Your task to perform on an android device: turn smart compose on in the gmail app Image 0: 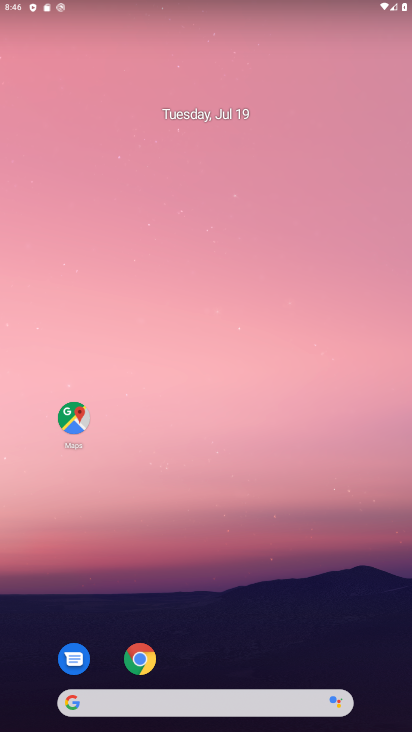
Step 0: drag from (209, 334) to (238, 0)
Your task to perform on an android device: turn smart compose on in the gmail app Image 1: 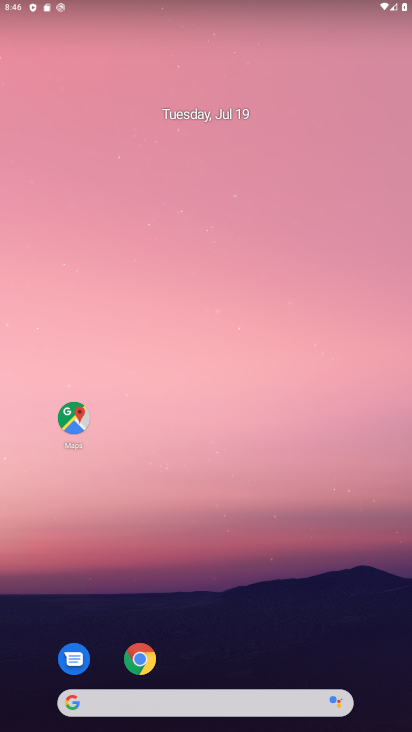
Step 1: drag from (202, 645) to (333, 246)
Your task to perform on an android device: turn smart compose on in the gmail app Image 2: 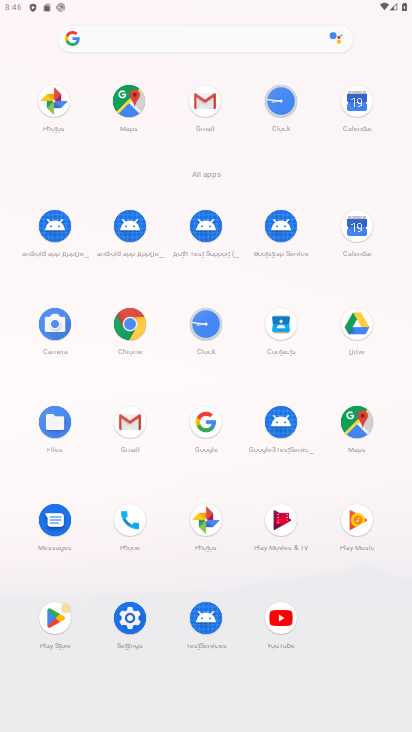
Step 2: click (129, 415)
Your task to perform on an android device: turn smart compose on in the gmail app Image 3: 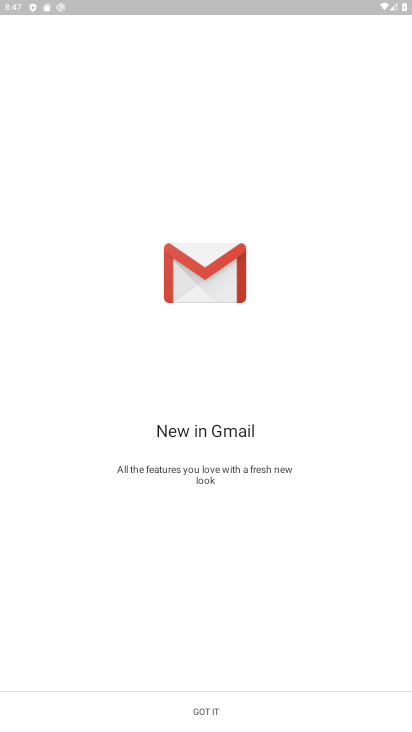
Step 3: click (202, 707)
Your task to perform on an android device: turn smart compose on in the gmail app Image 4: 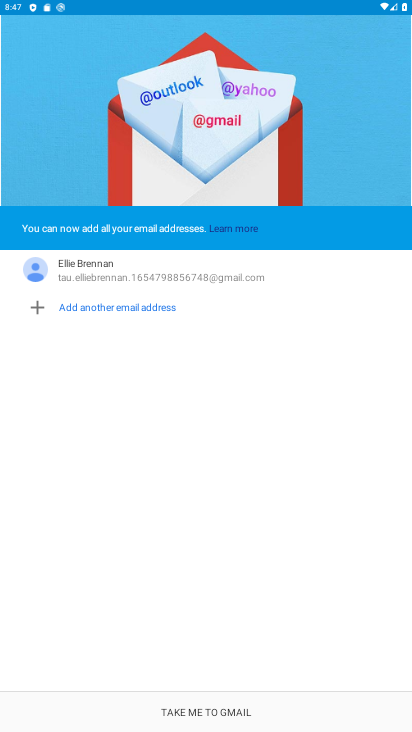
Step 4: click (187, 712)
Your task to perform on an android device: turn smart compose on in the gmail app Image 5: 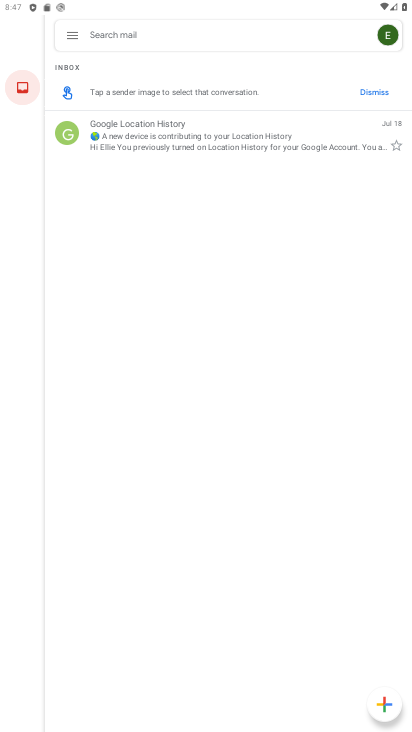
Step 5: click (67, 35)
Your task to perform on an android device: turn smart compose on in the gmail app Image 6: 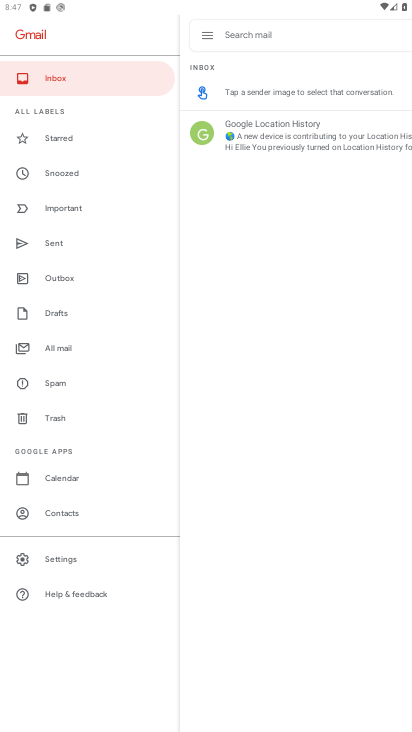
Step 6: click (50, 550)
Your task to perform on an android device: turn smart compose on in the gmail app Image 7: 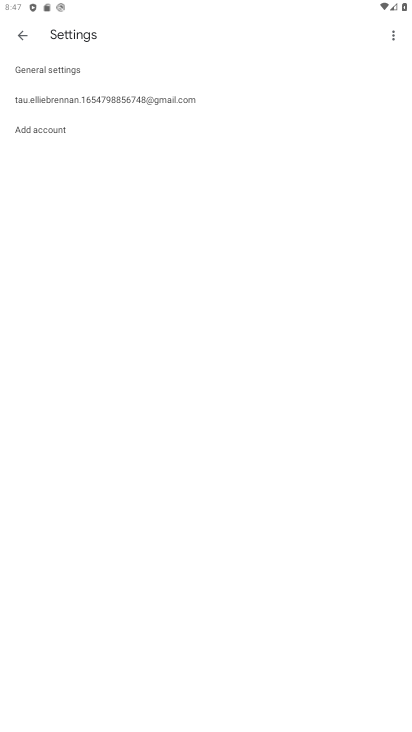
Step 7: click (157, 106)
Your task to perform on an android device: turn smart compose on in the gmail app Image 8: 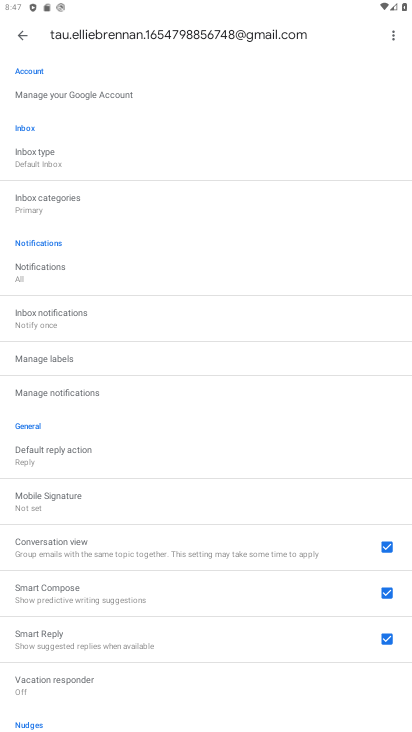
Step 8: task complete